Your task to perform on an android device: change notifications settings Image 0: 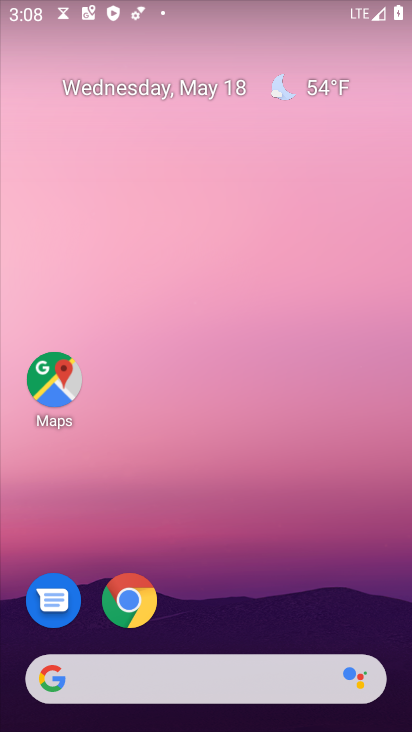
Step 0: press home button
Your task to perform on an android device: change notifications settings Image 1: 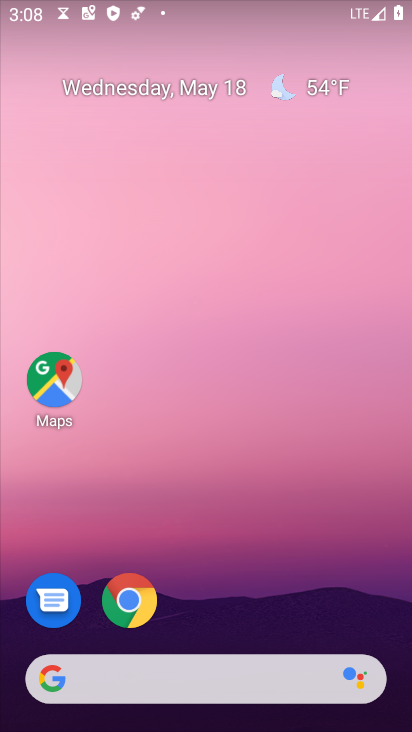
Step 1: drag from (145, 665) to (305, 200)
Your task to perform on an android device: change notifications settings Image 2: 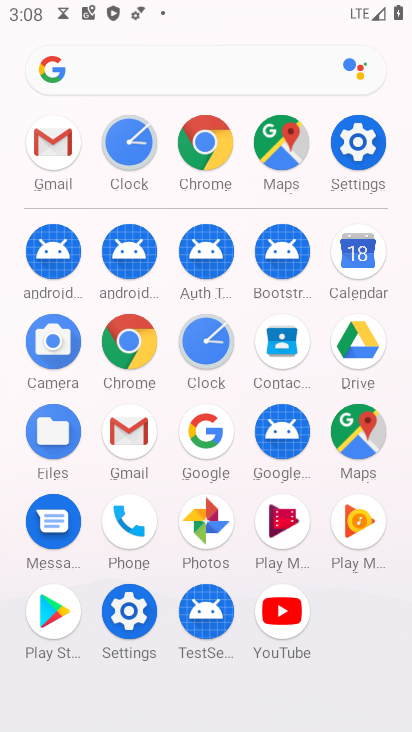
Step 2: click (363, 157)
Your task to perform on an android device: change notifications settings Image 3: 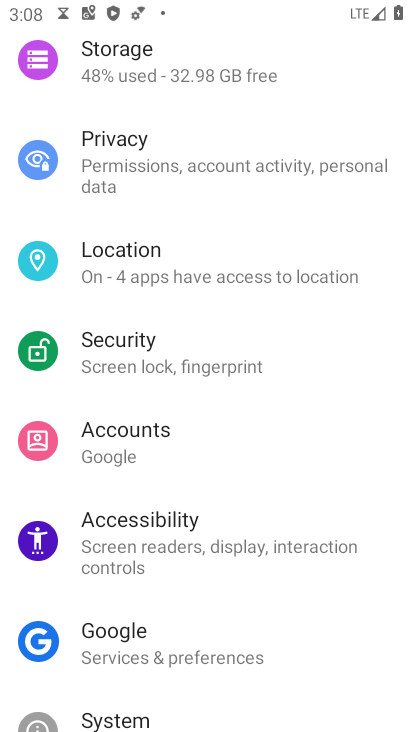
Step 3: drag from (277, 271) to (246, 615)
Your task to perform on an android device: change notifications settings Image 4: 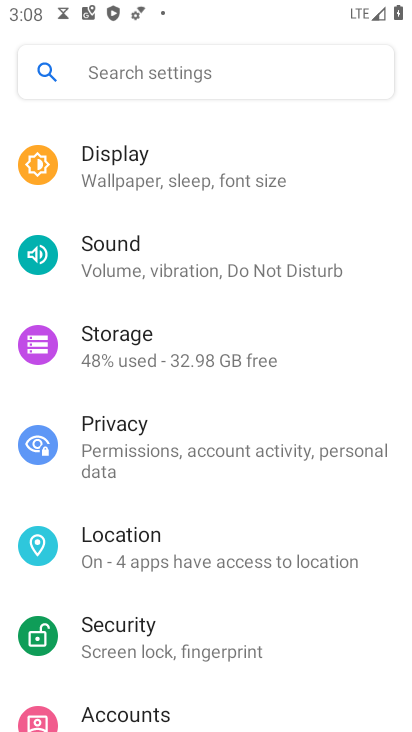
Step 4: drag from (297, 231) to (229, 501)
Your task to perform on an android device: change notifications settings Image 5: 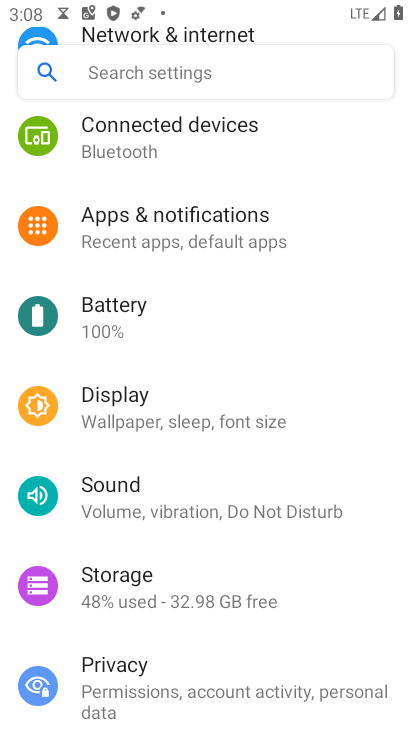
Step 5: click (264, 228)
Your task to perform on an android device: change notifications settings Image 6: 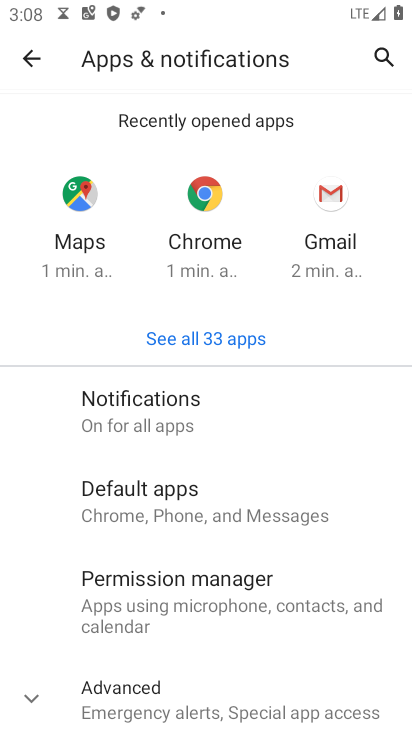
Step 6: click (224, 406)
Your task to perform on an android device: change notifications settings Image 7: 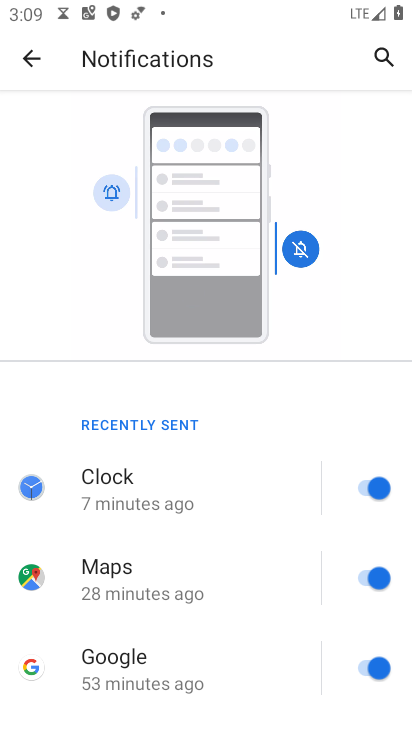
Step 7: click (367, 494)
Your task to perform on an android device: change notifications settings Image 8: 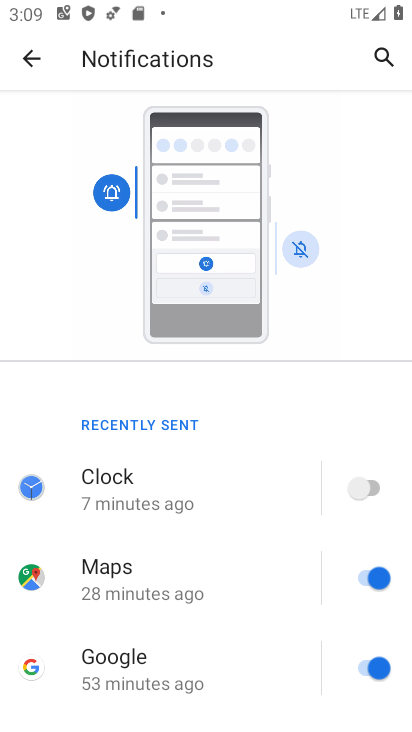
Step 8: task complete